Your task to perform on an android device: open a bookmark in the chrome app Image 0: 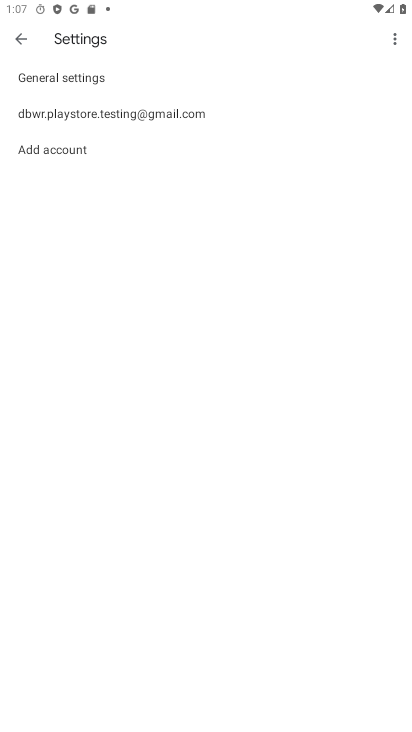
Step 0: click (373, 632)
Your task to perform on an android device: open a bookmark in the chrome app Image 1: 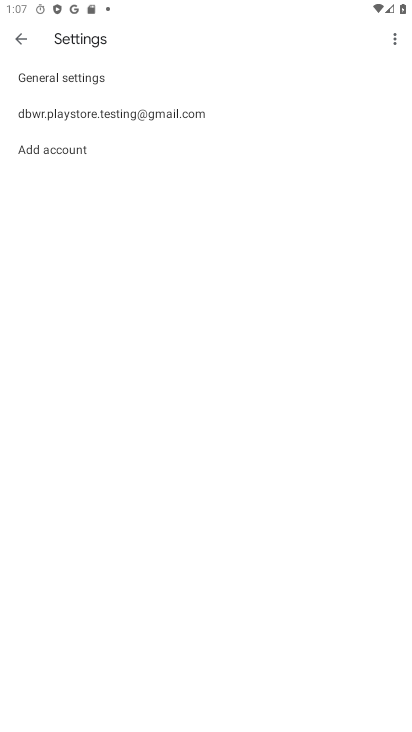
Step 1: press home button
Your task to perform on an android device: open a bookmark in the chrome app Image 2: 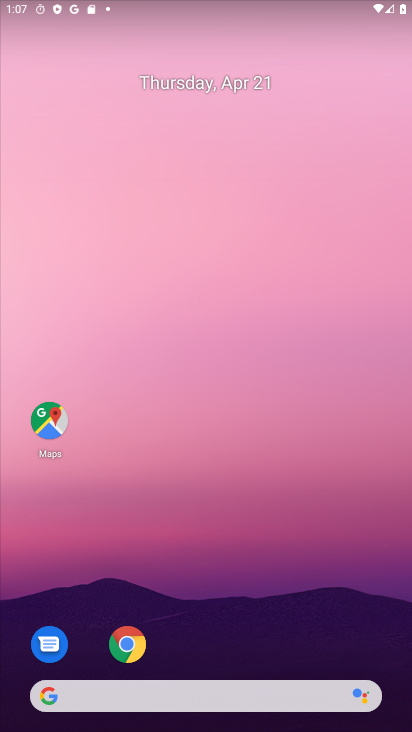
Step 2: click (136, 651)
Your task to perform on an android device: open a bookmark in the chrome app Image 3: 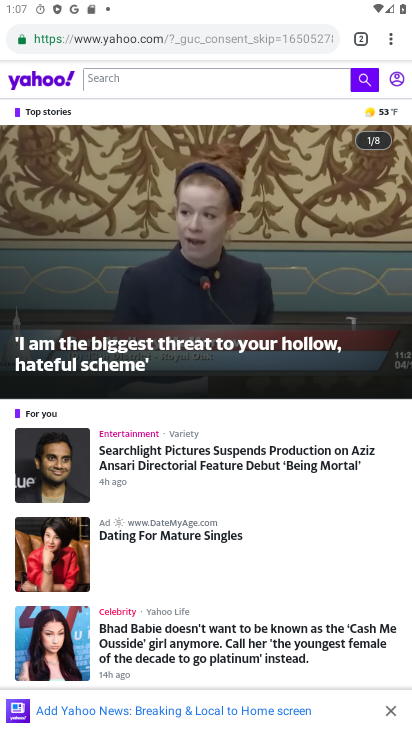
Step 3: click (394, 52)
Your task to perform on an android device: open a bookmark in the chrome app Image 4: 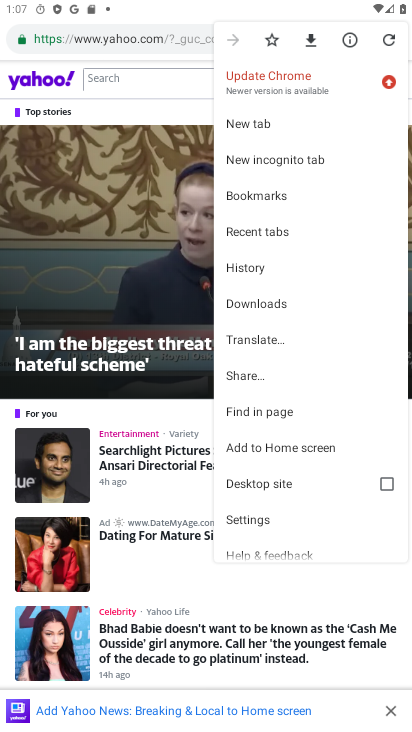
Step 4: click (279, 201)
Your task to perform on an android device: open a bookmark in the chrome app Image 5: 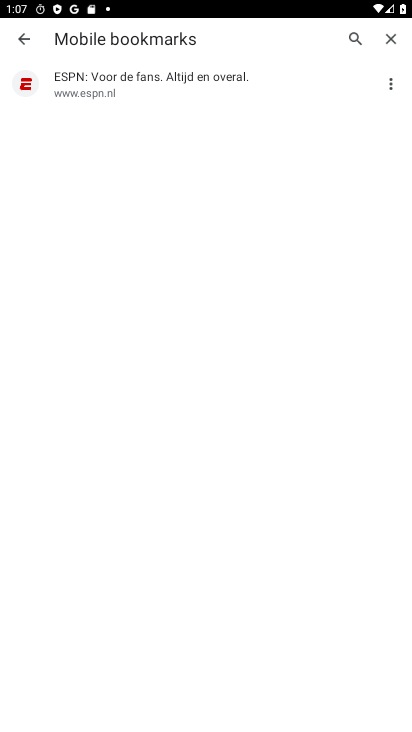
Step 5: click (224, 92)
Your task to perform on an android device: open a bookmark in the chrome app Image 6: 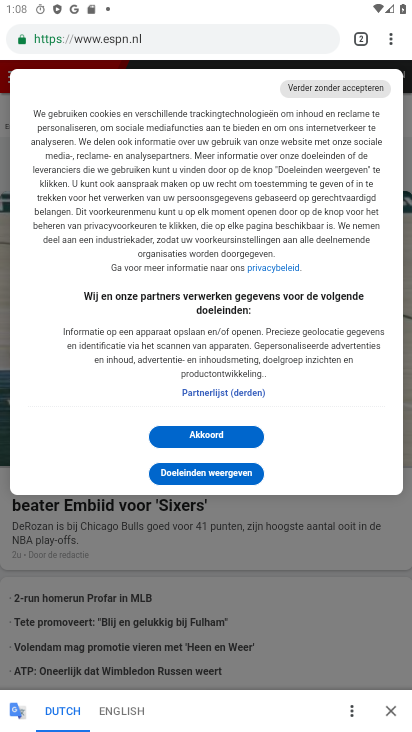
Step 6: task complete